Your task to perform on an android device: Go to Google Image 0: 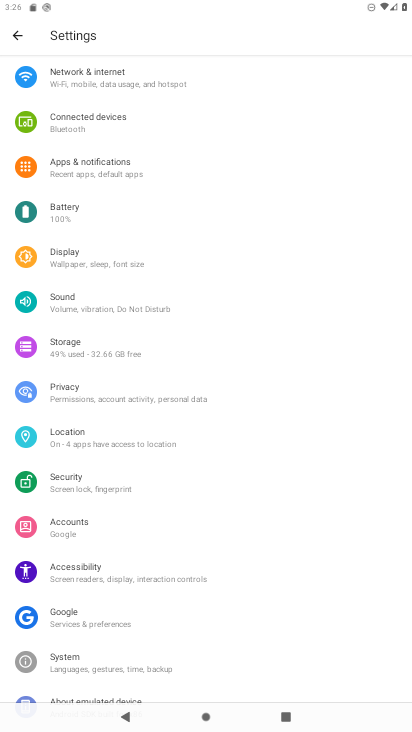
Step 0: press home button
Your task to perform on an android device: Go to Google Image 1: 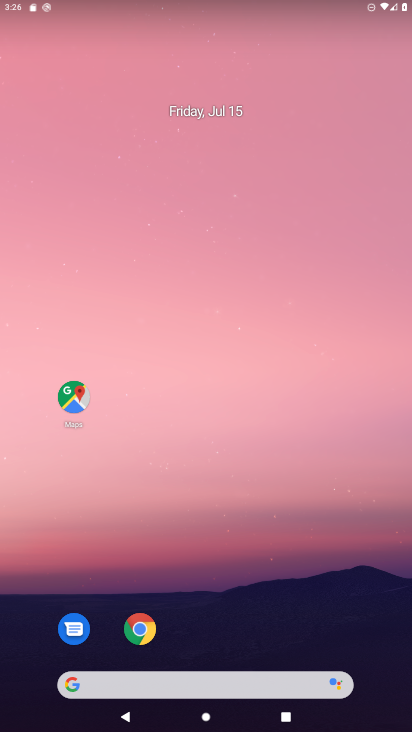
Step 1: drag from (225, 485) to (176, 7)
Your task to perform on an android device: Go to Google Image 2: 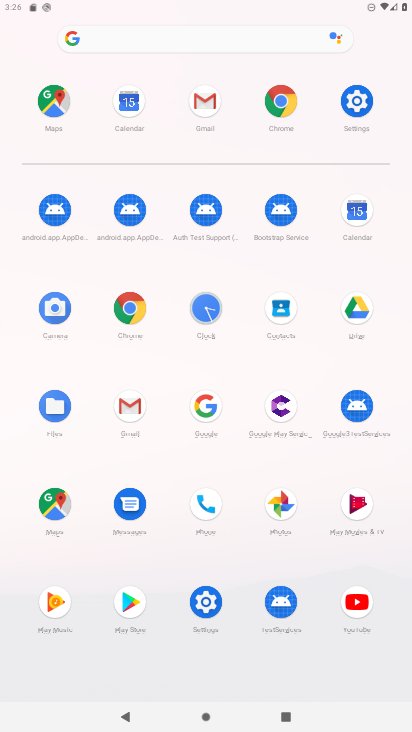
Step 2: click (215, 399)
Your task to perform on an android device: Go to Google Image 3: 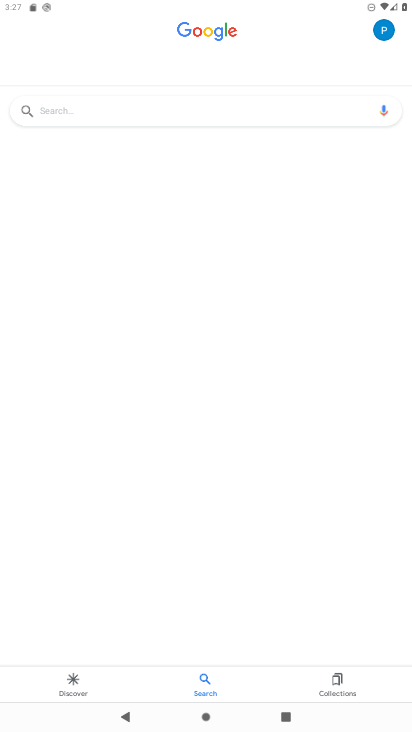
Step 3: task complete